Your task to perform on an android device: turn on bluetooth scan Image 0: 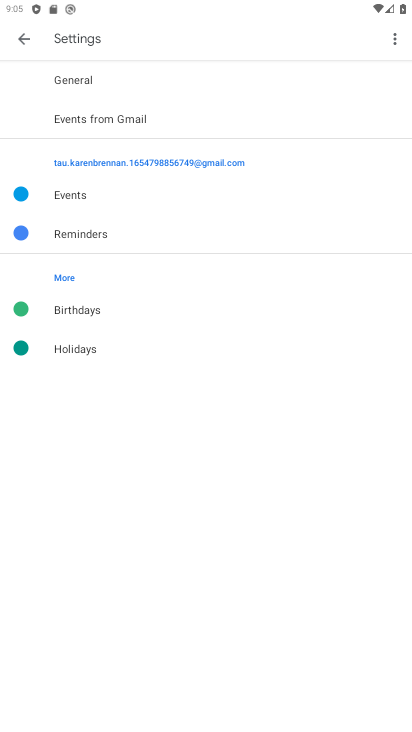
Step 0: press home button
Your task to perform on an android device: turn on bluetooth scan Image 1: 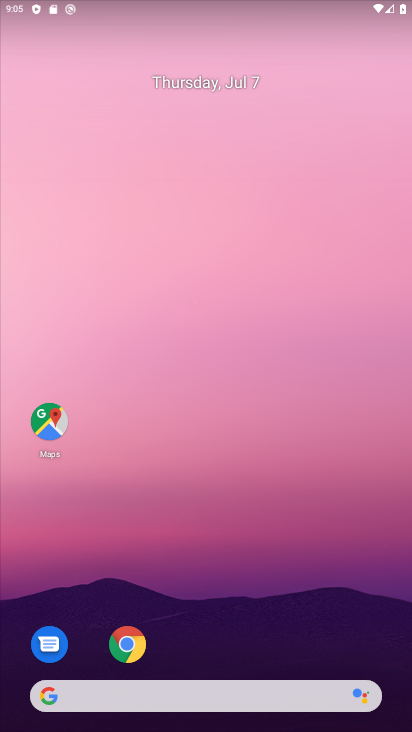
Step 1: drag from (352, 500) to (354, 20)
Your task to perform on an android device: turn on bluetooth scan Image 2: 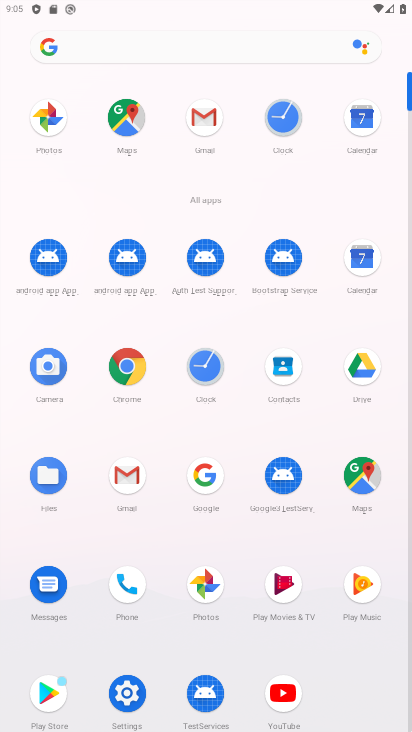
Step 2: click (128, 687)
Your task to perform on an android device: turn on bluetooth scan Image 3: 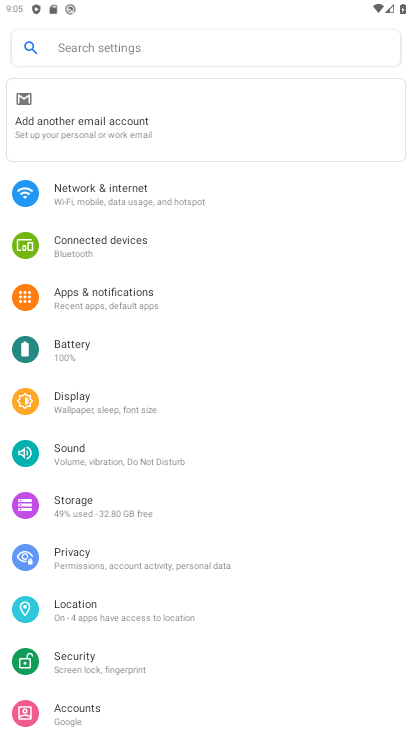
Step 3: click (113, 621)
Your task to perform on an android device: turn on bluetooth scan Image 4: 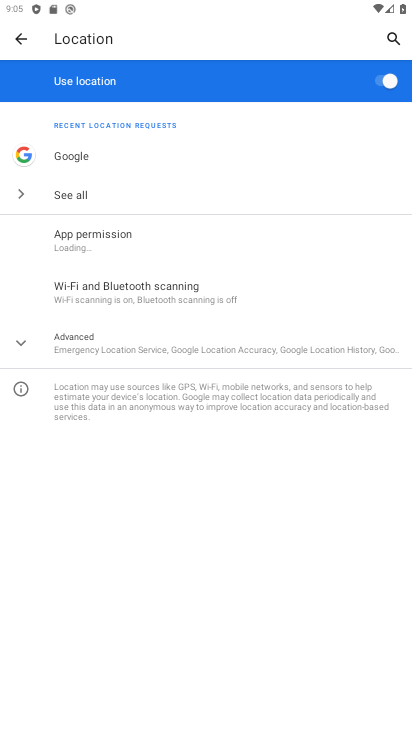
Step 4: click (168, 281)
Your task to perform on an android device: turn on bluetooth scan Image 5: 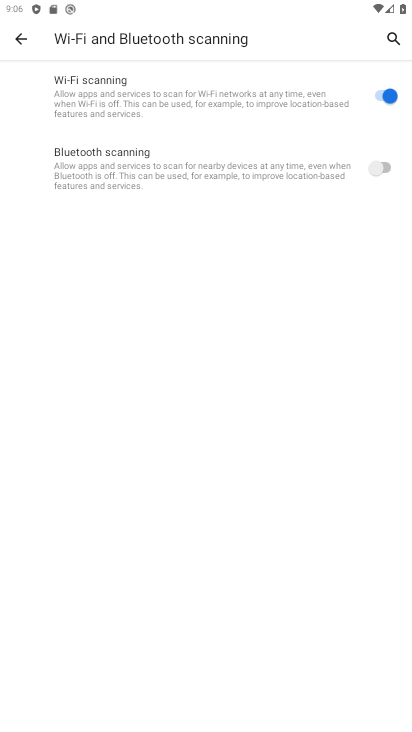
Step 5: click (386, 171)
Your task to perform on an android device: turn on bluetooth scan Image 6: 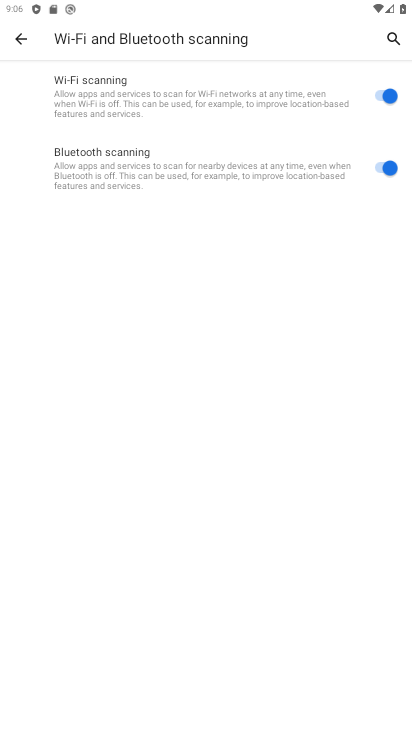
Step 6: task complete